Your task to perform on an android device: Open notification settings Image 0: 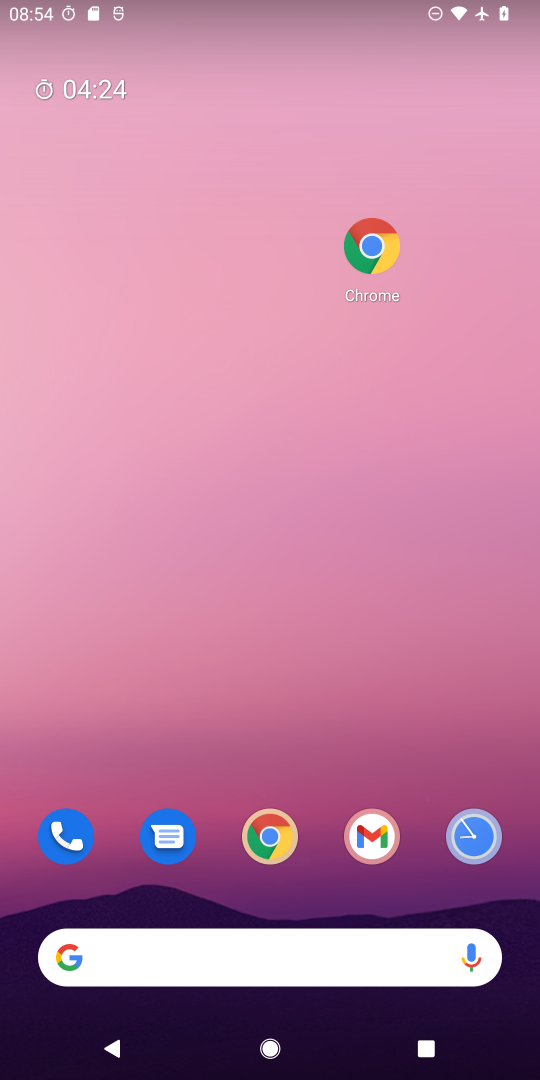
Step 0: click (255, 239)
Your task to perform on an android device: Open notification settings Image 1: 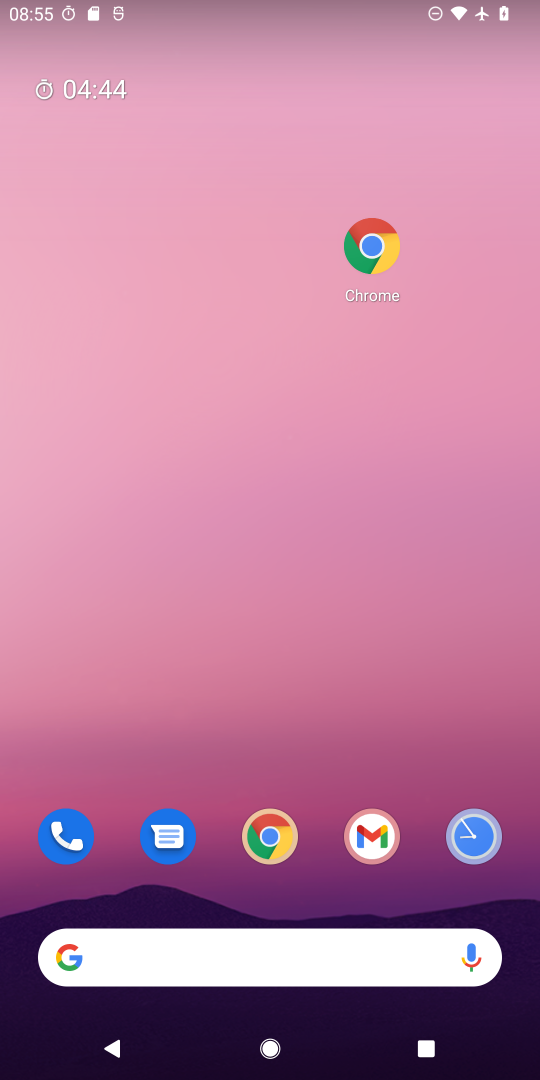
Step 1: drag from (264, 897) to (271, 392)
Your task to perform on an android device: Open notification settings Image 2: 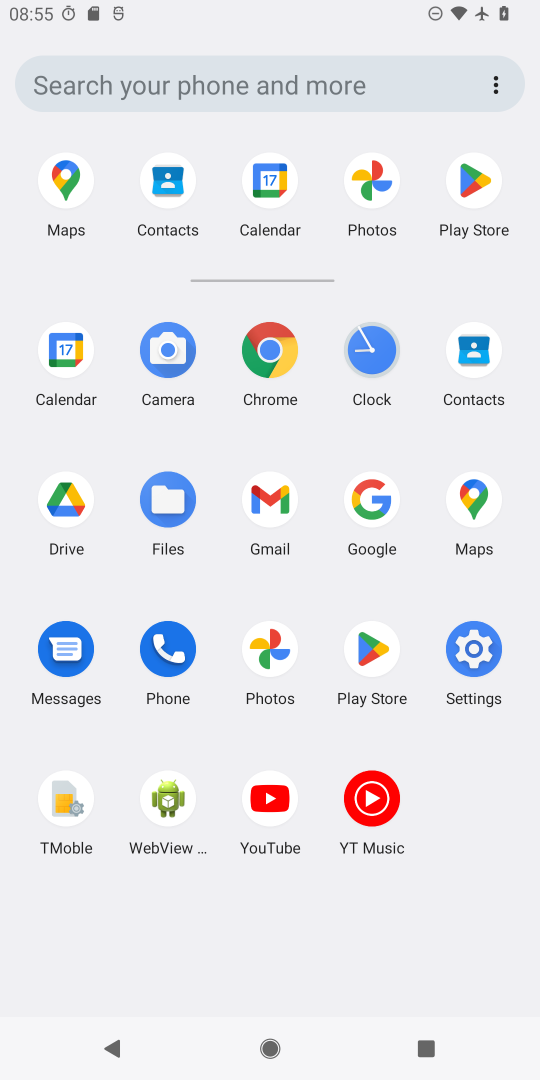
Step 2: click (483, 641)
Your task to perform on an android device: Open notification settings Image 3: 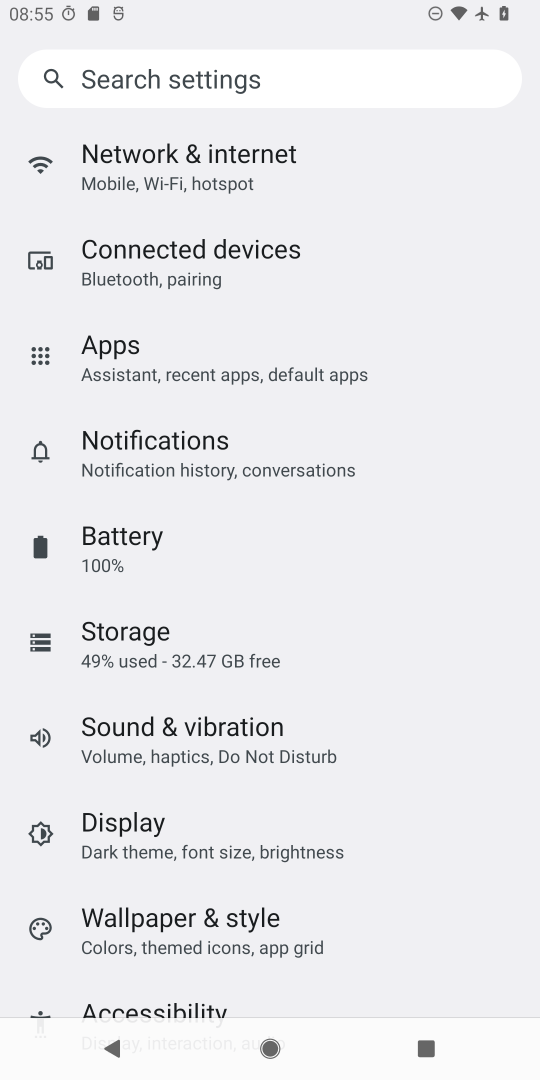
Step 3: click (205, 476)
Your task to perform on an android device: Open notification settings Image 4: 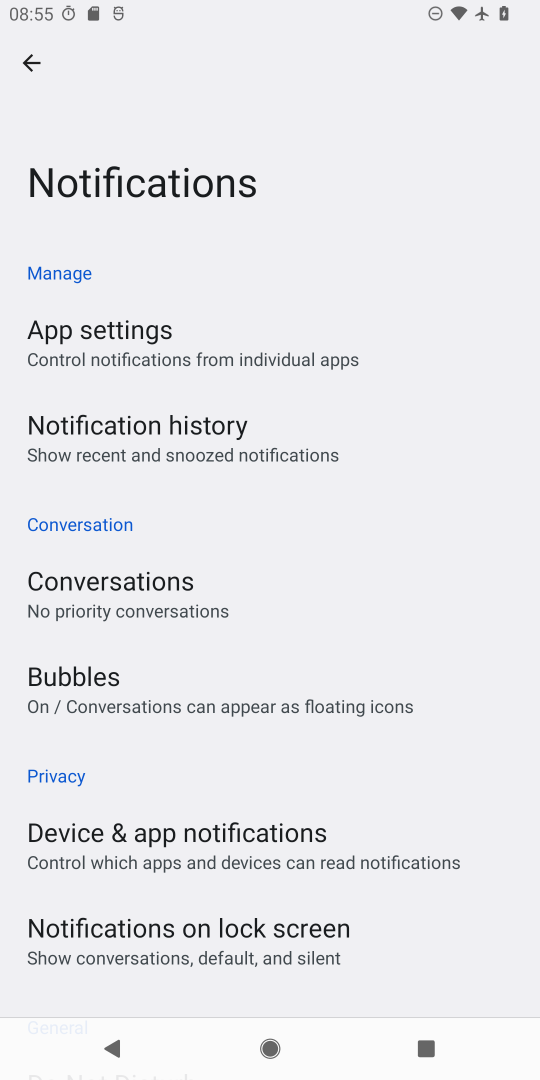
Step 4: task complete